Your task to perform on an android device: check out phone information Image 0: 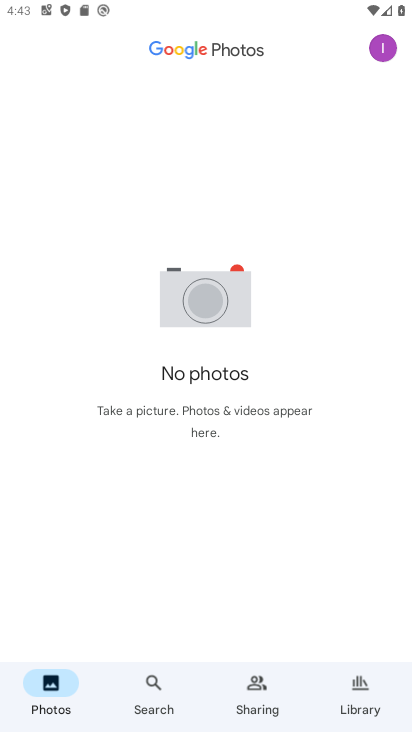
Step 0: press home button
Your task to perform on an android device: check out phone information Image 1: 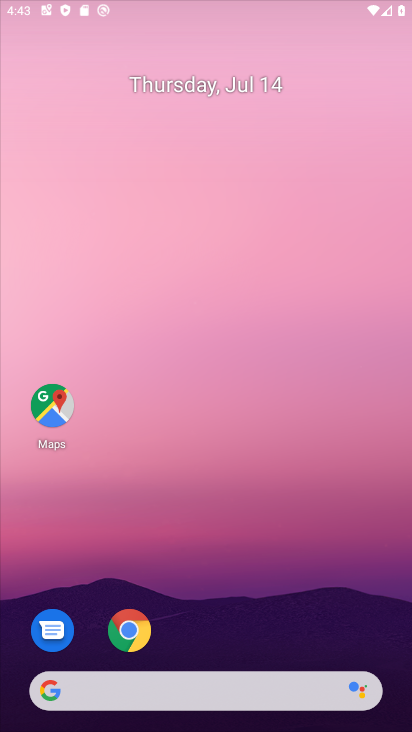
Step 1: drag from (171, 680) to (243, 3)
Your task to perform on an android device: check out phone information Image 2: 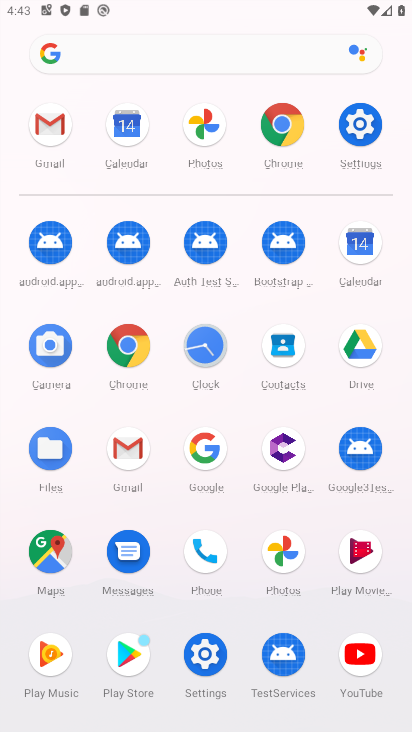
Step 2: click (345, 124)
Your task to perform on an android device: check out phone information Image 3: 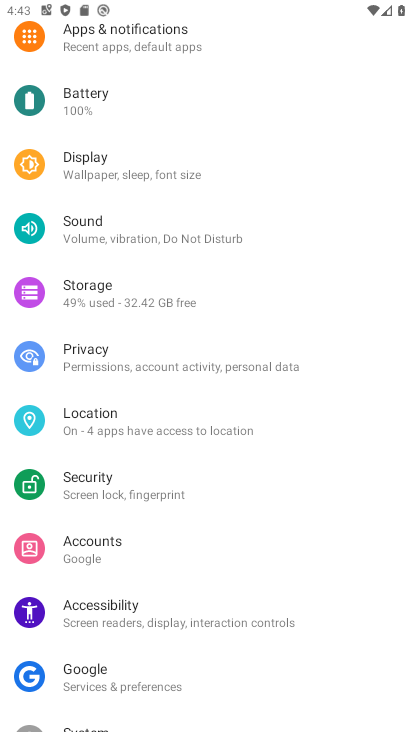
Step 3: drag from (186, 718) to (191, 46)
Your task to perform on an android device: check out phone information Image 4: 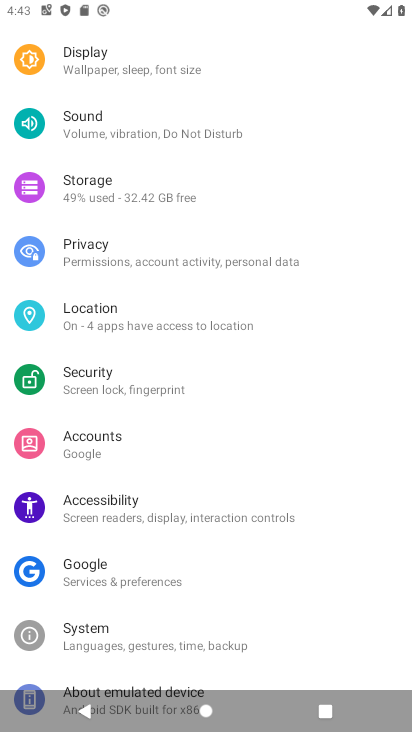
Step 4: click (179, 685)
Your task to perform on an android device: check out phone information Image 5: 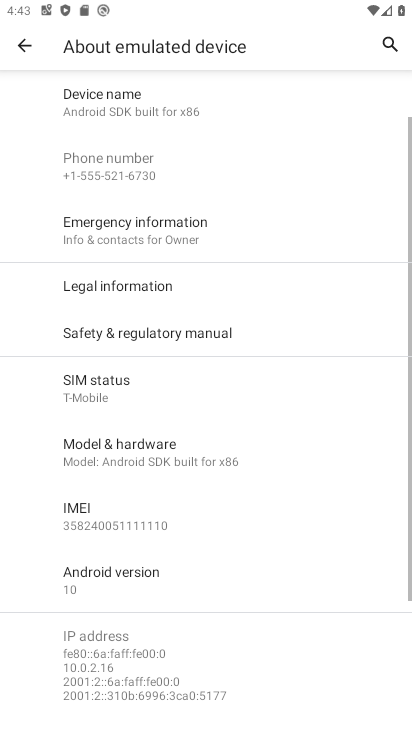
Step 5: task complete